Your task to perform on an android device: turn vacation reply on in the gmail app Image 0: 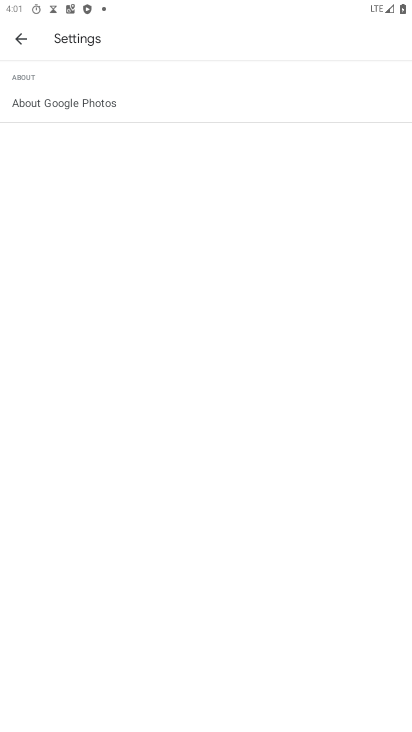
Step 0: press home button
Your task to perform on an android device: turn vacation reply on in the gmail app Image 1: 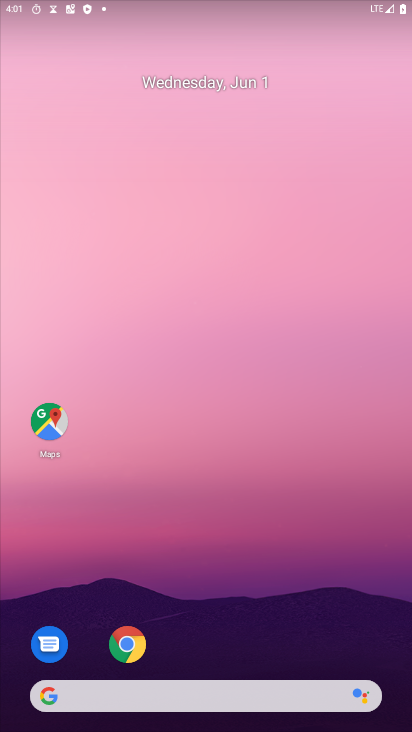
Step 1: drag from (349, 619) to (332, 91)
Your task to perform on an android device: turn vacation reply on in the gmail app Image 2: 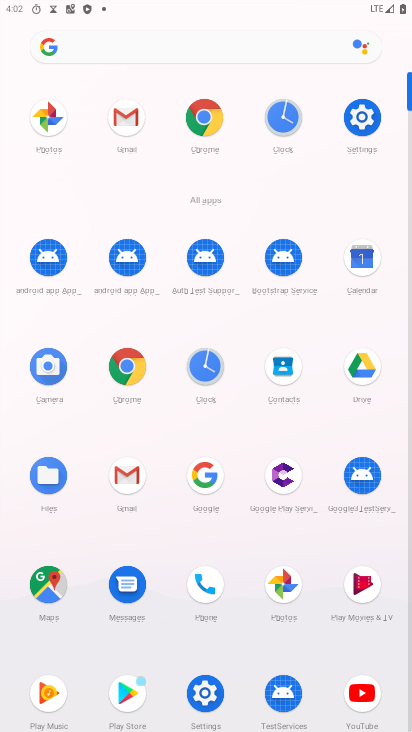
Step 2: click (117, 123)
Your task to perform on an android device: turn vacation reply on in the gmail app Image 3: 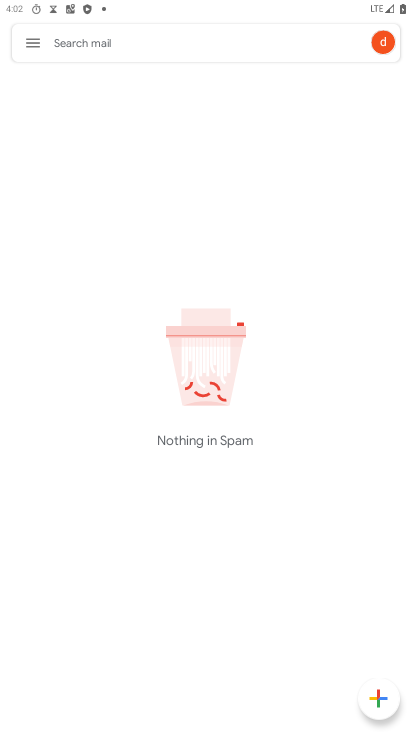
Step 3: click (23, 40)
Your task to perform on an android device: turn vacation reply on in the gmail app Image 4: 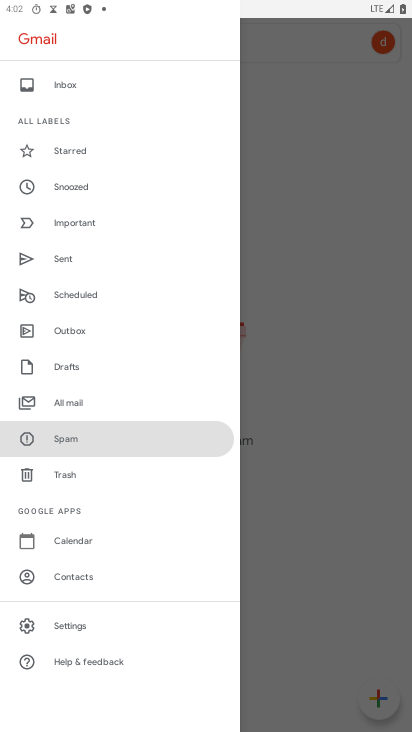
Step 4: click (104, 625)
Your task to perform on an android device: turn vacation reply on in the gmail app Image 5: 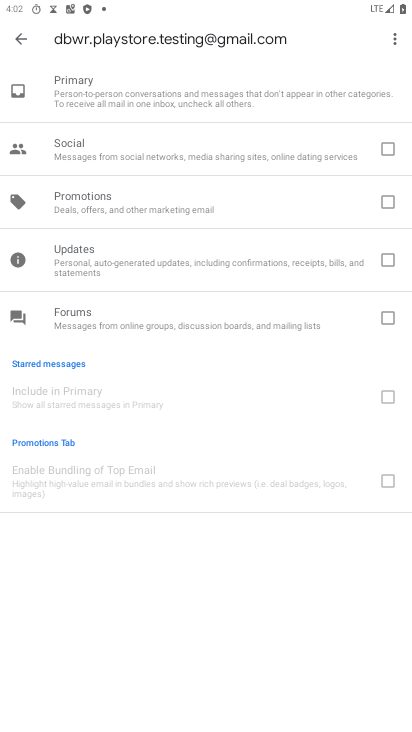
Step 5: press back button
Your task to perform on an android device: turn vacation reply on in the gmail app Image 6: 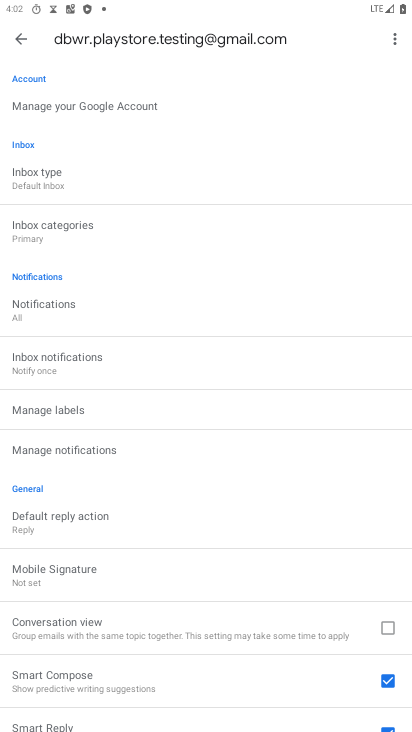
Step 6: drag from (216, 594) to (268, 279)
Your task to perform on an android device: turn vacation reply on in the gmail app Image 7: 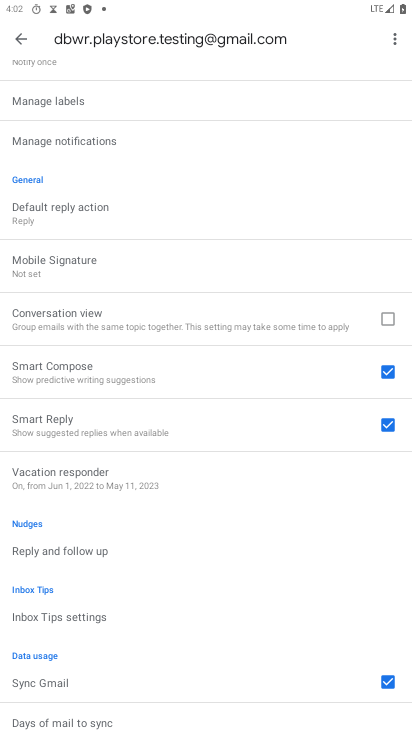
Step 7: drag from (278, 549) to (311, 171)
Your task to perform on an android device: turn vacation reply on in the gmail app Image 8: 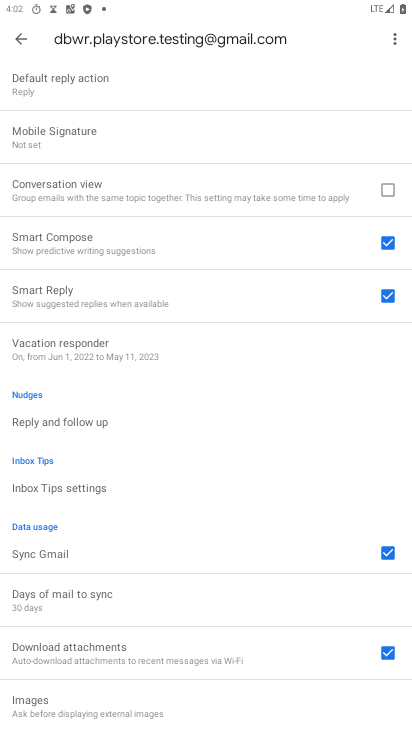
Step 8: click (98, 350)
Your task to perform on an android device: turn vacation reply on in the gmail app Image 9: 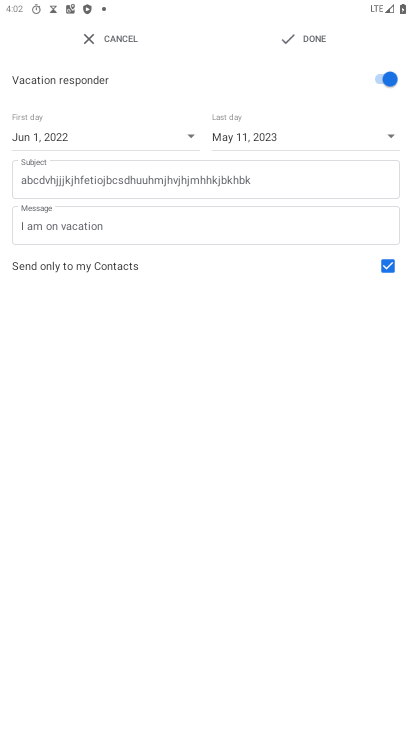
Step 9: task complete